Your task to perform on an android device: Open my contact list Image 0: 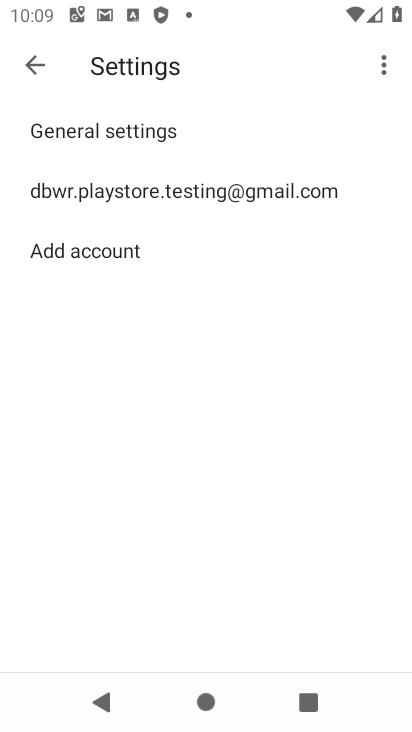
Step 0: press home button
Your task to perform on an android device: Open my contact list Image 1: 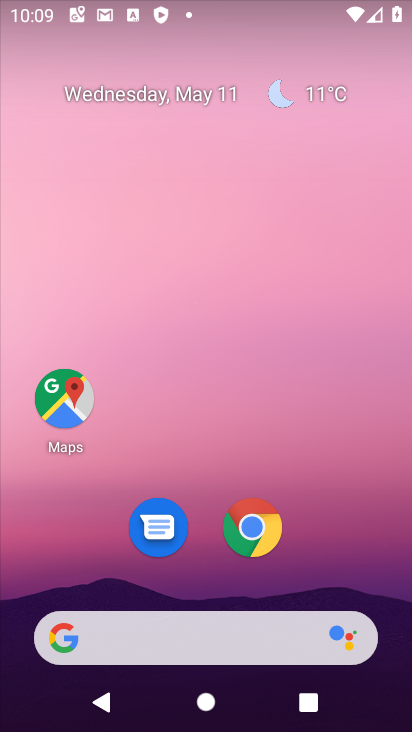
Step 1: drag from (349, 556) to (322, 95)
Your task to perform on an android device: Open my contact list Image 2: 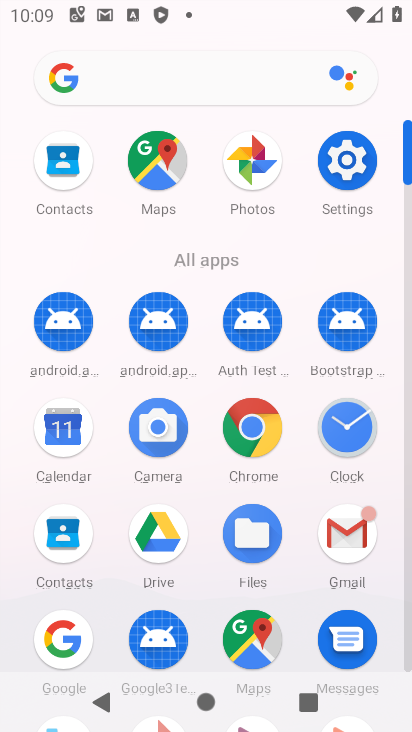
Step 2: click (73, 556)
Your task to perform on an android device: Open my contact list Image 3: 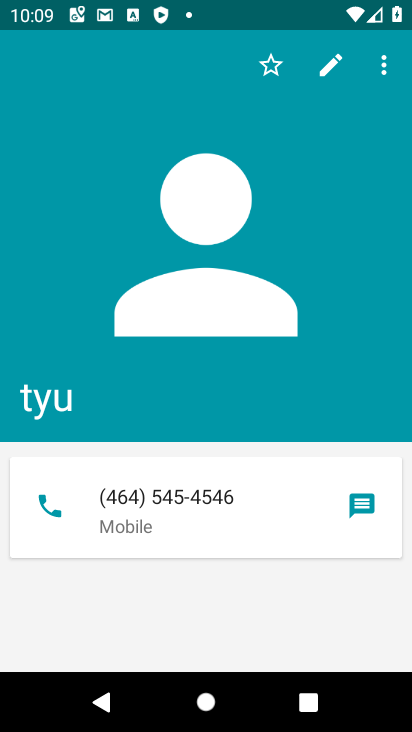
Step 3: click (109, 718)
Your task to perform on an android device: Open my contact list Image 4: 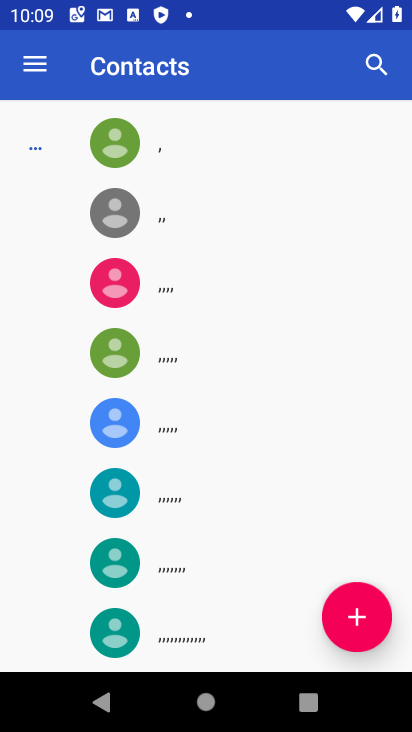
Step 4: task complete